Your task to perform on an android device: What's the weather? Image 0: 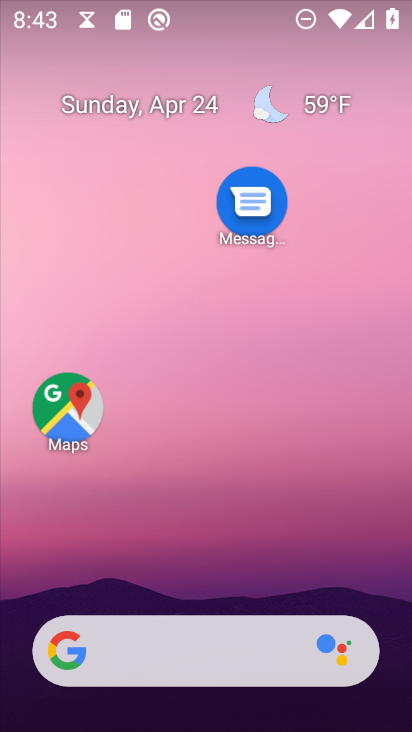
Step 0: drag from (183, 652) to (349, 108)
Your task to perform on an android device: What's the weather? Image 1: 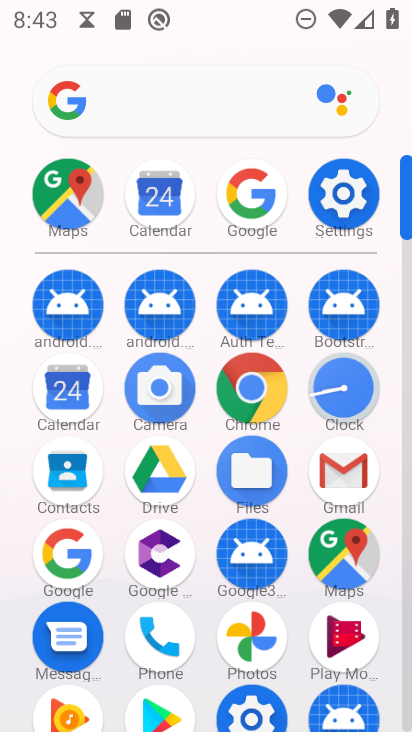
Step 1: click (73, 562)
Your task to perform on an android device: What's the weather? Image 2: 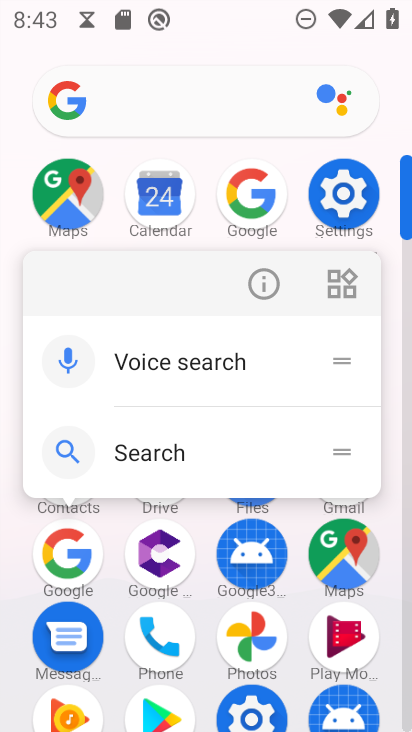
Step 2: click (60, 576)
Your task to perform on an android device: What's the weather? Image 3: 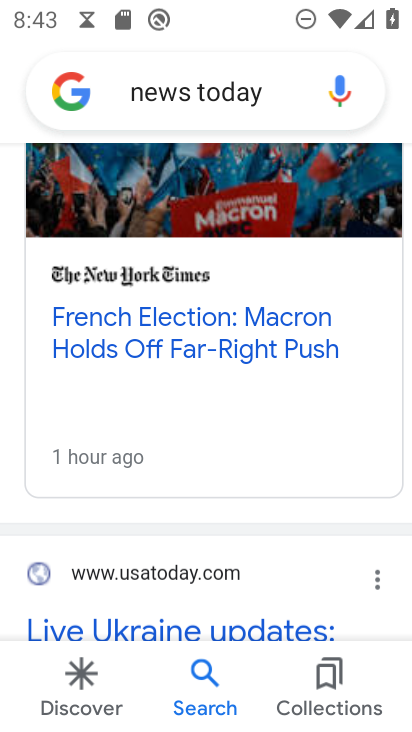
Step 3: drag from (321, 255) to (246, 600)
Your task to perform on an android device: What's the weather? Image 4: 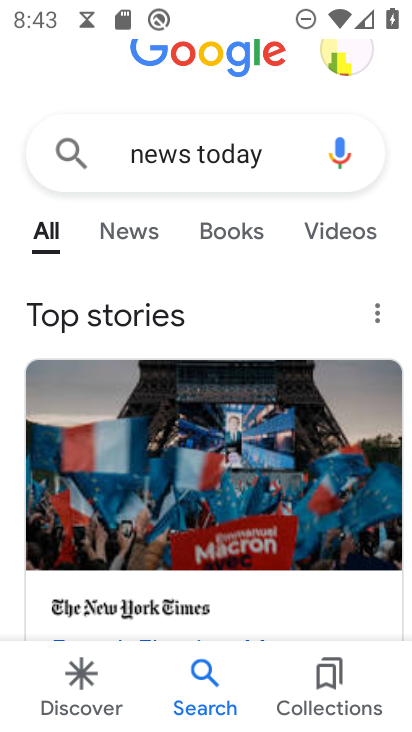
Step 4: click (280, 151)
Your task to perform on an android device: What's the weather? Image 5: 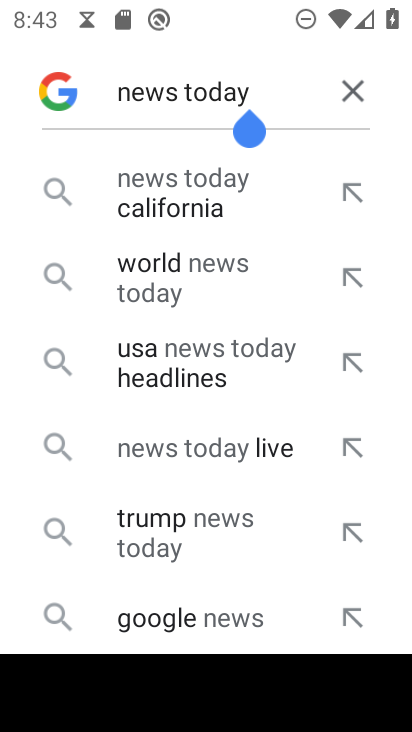
Step 5: click (349, 75)
Your task to perform on an android device: What's the weather? Image 6: 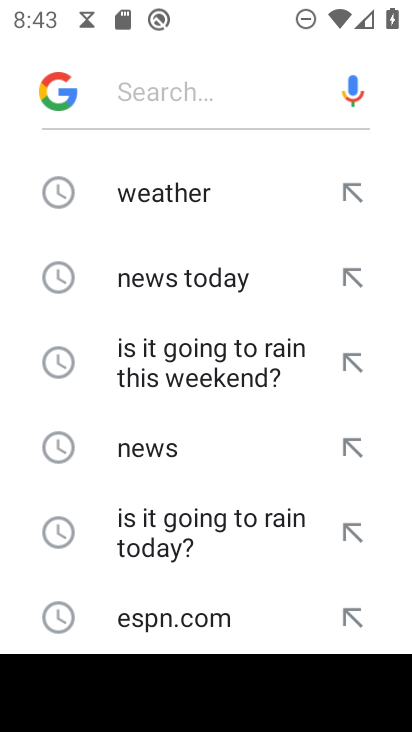
Step 6: click (188, 186)
Your task to perform on an android device: What's the weather? Image 7: 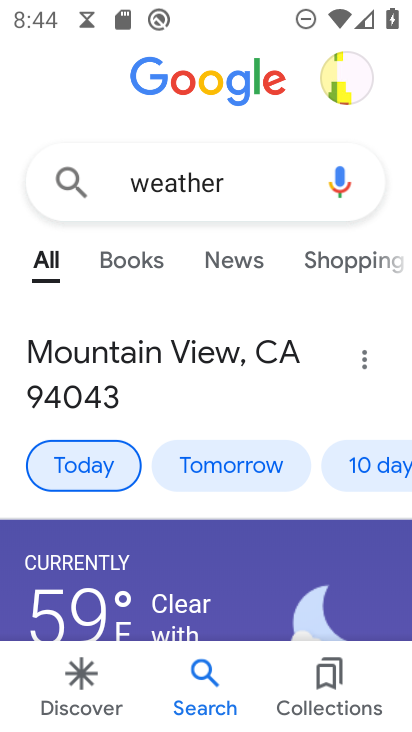
Step 7: task complete